Your task to perform on an android device: open a bookmark in the chrome app Image 0: 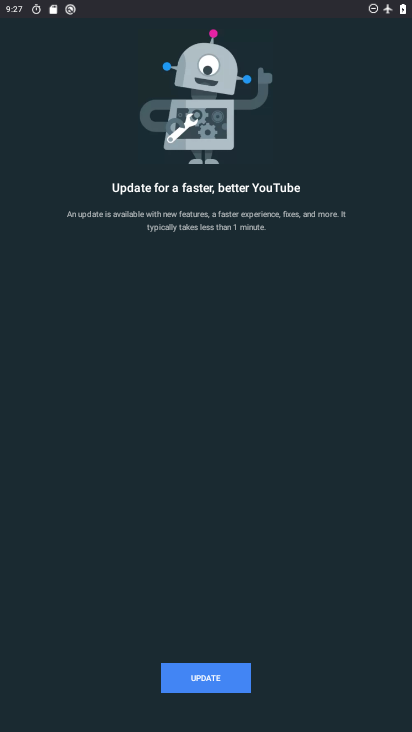
Step 0: press home button
Your task to perform on an android device: open a bookmark in the chrome app Image 1: 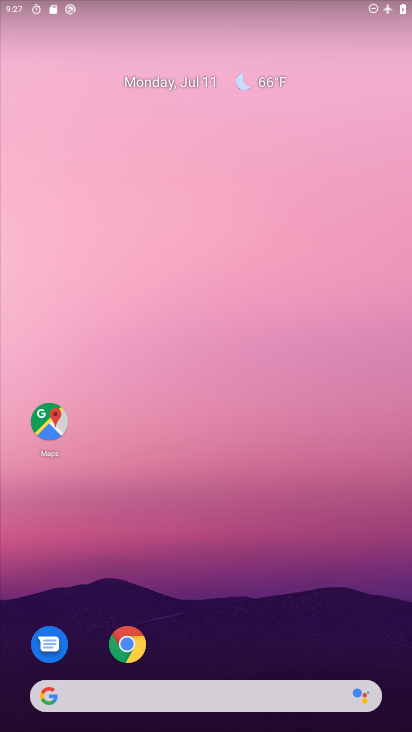
Step 1: click (130, 640)
Your task to perform on an android device: open a bookmark in the chrome app Image 2: 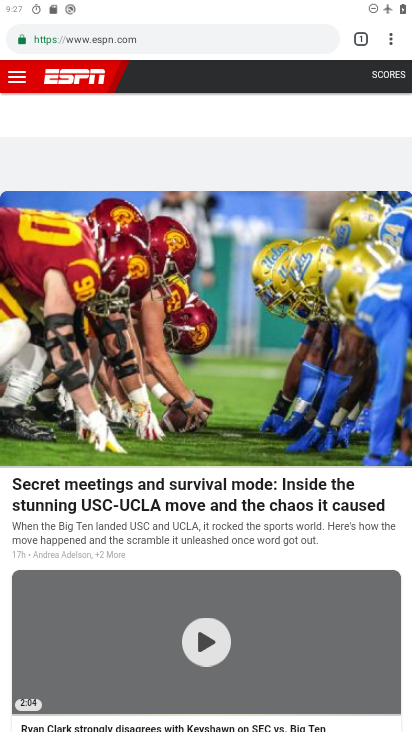
Step 2: drag from (390, 38) to (258, 188)
Your task to perform on an android device: open a bookmark in the chrome app Image 3: 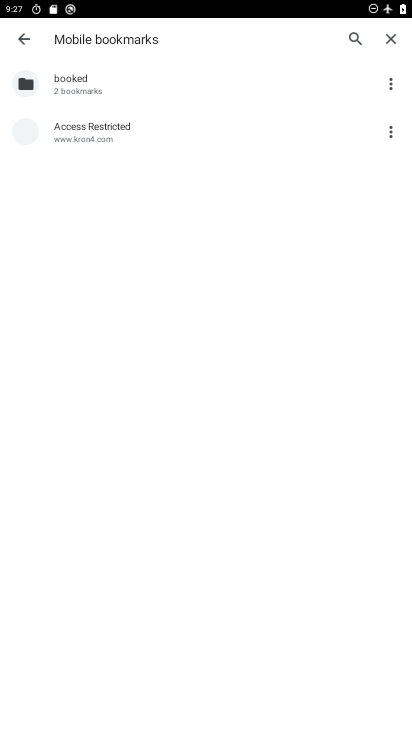
Step 3: click (94, 131)
Your task to perform on an android device: open a bookmark in the chrome app Image 4: 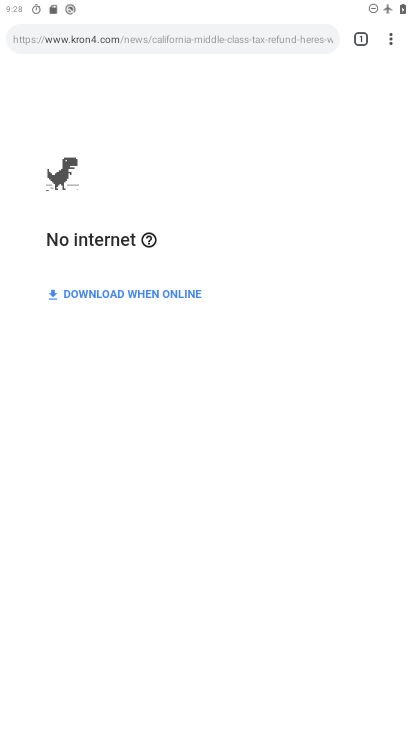
Step 4: task complete